Your task to perform on an android device: find photos in the google photos app Image 0: 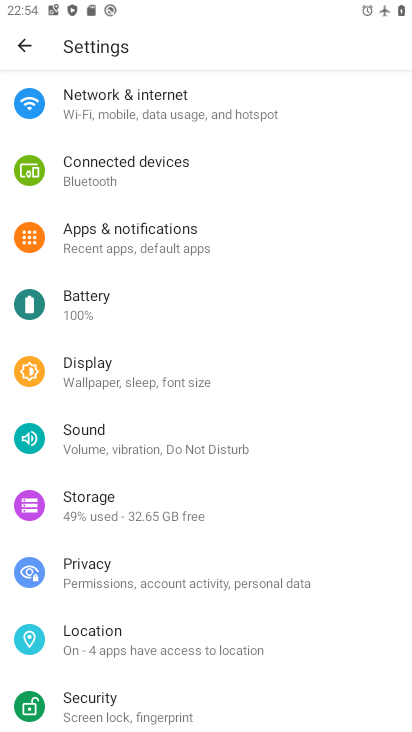
Step 0: press home button
Your task to perform on an android device: find photos in the google photos app Image 1: 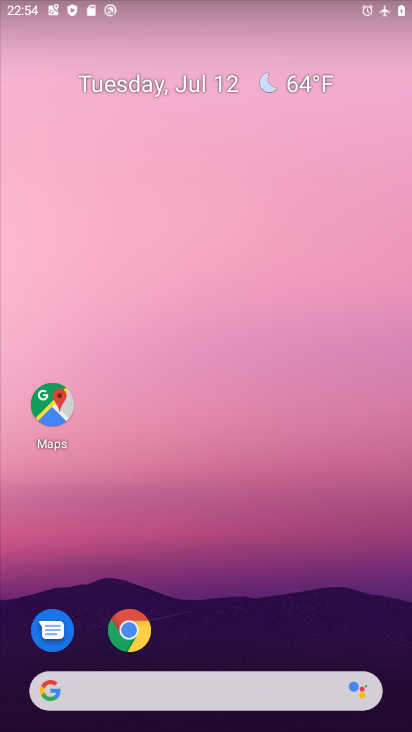
Step 1: drag from (212, 652) to (90, 42)
Your task to perform on an android device: find photos in the google photos app Image 2: 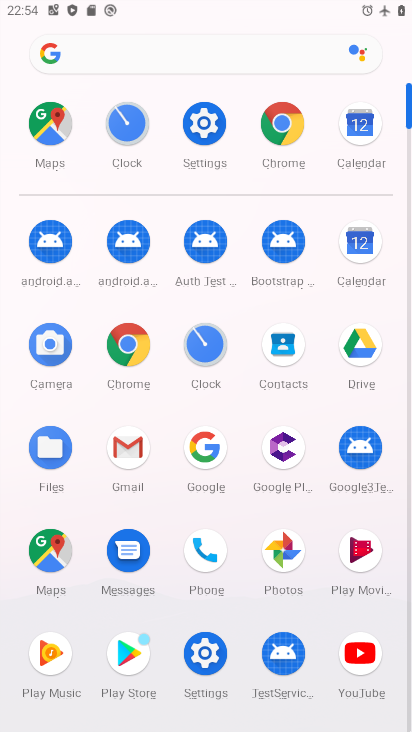
Step 2: click (276, 539)
Your task to perform on an android device: find photos in the google photos app Image 3: 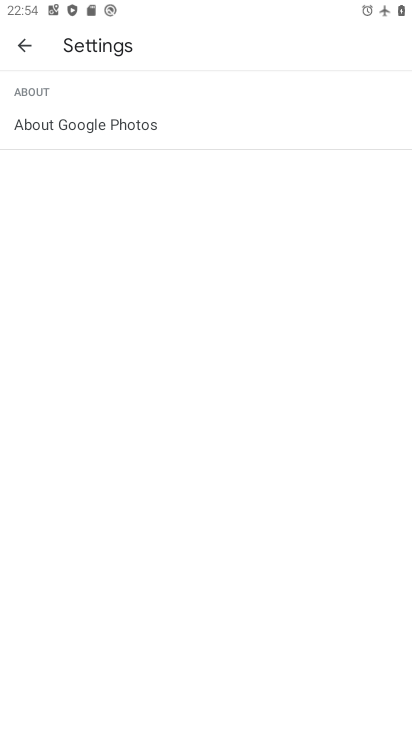
Step 3: click (14, 50)
Your task to perform on an android device: find photos in the google photos app Image 4: 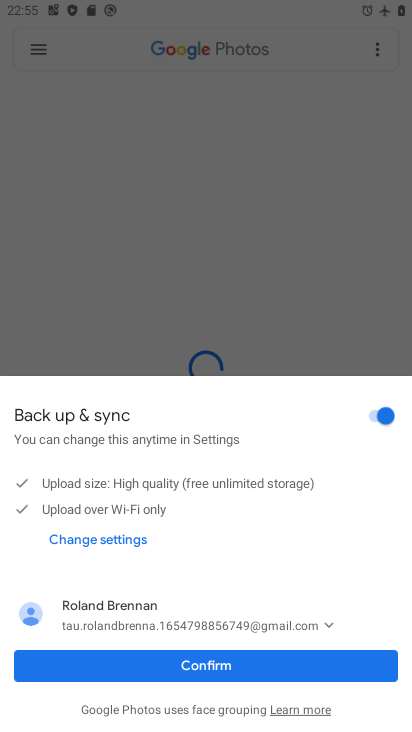
Step 4: click (222, 652)
Your task to perform on an android device: find photos in the google photos app Image 5: 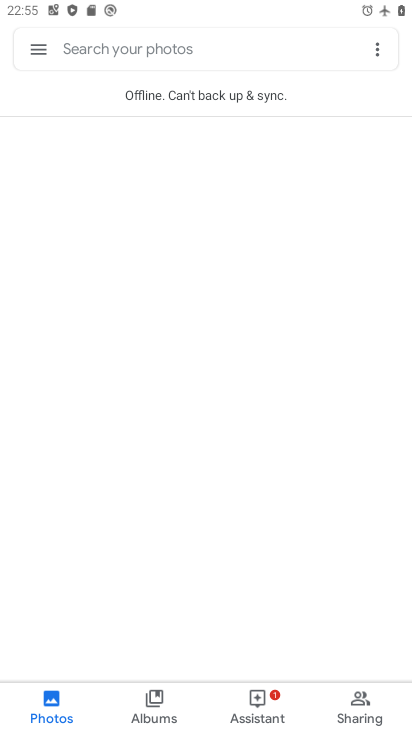
Step 5: task complete